Your task to perform on an android device: open app "AliExpress" (install if not already installed) Image 0: 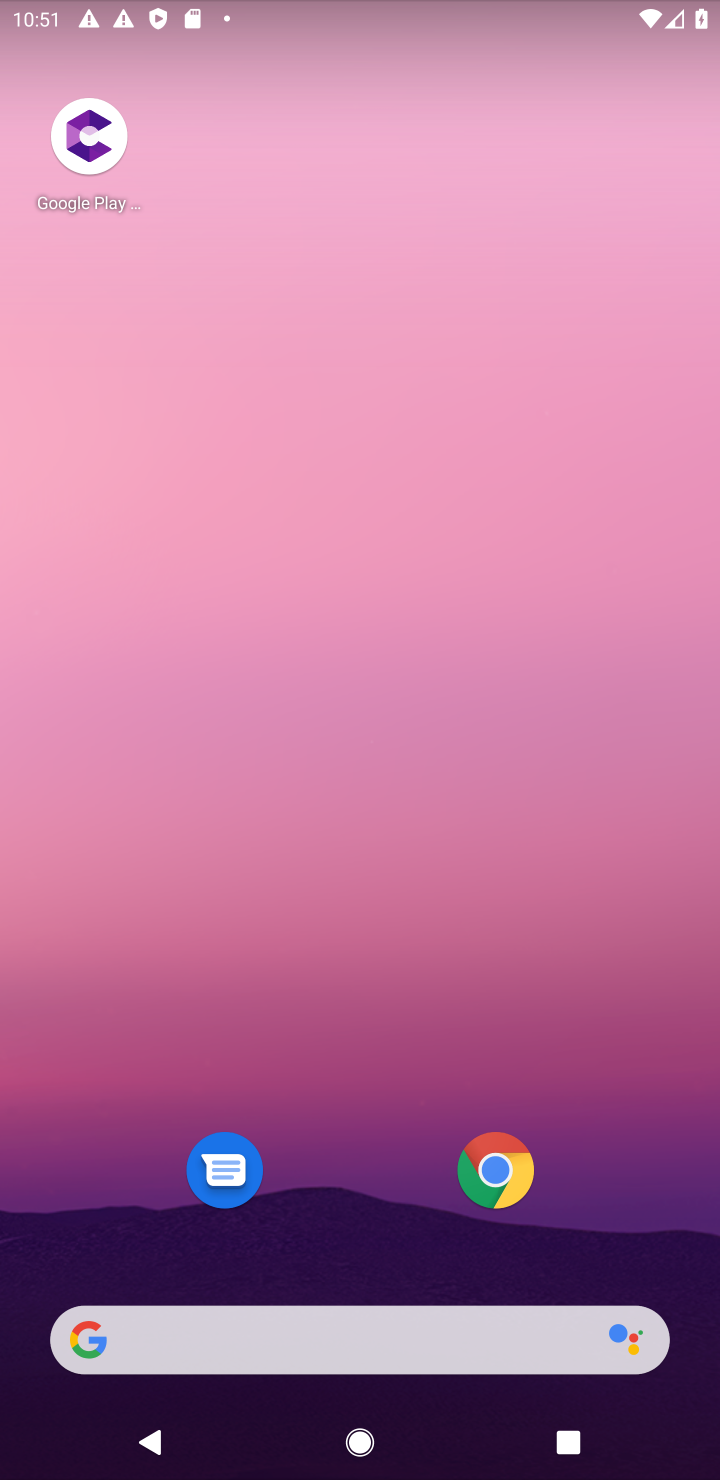
Step 0: drag from (513, 1347) to (512, 273)
Your task to perform on an android device: open app "AliExpress" (install if not already installed) Image 1: 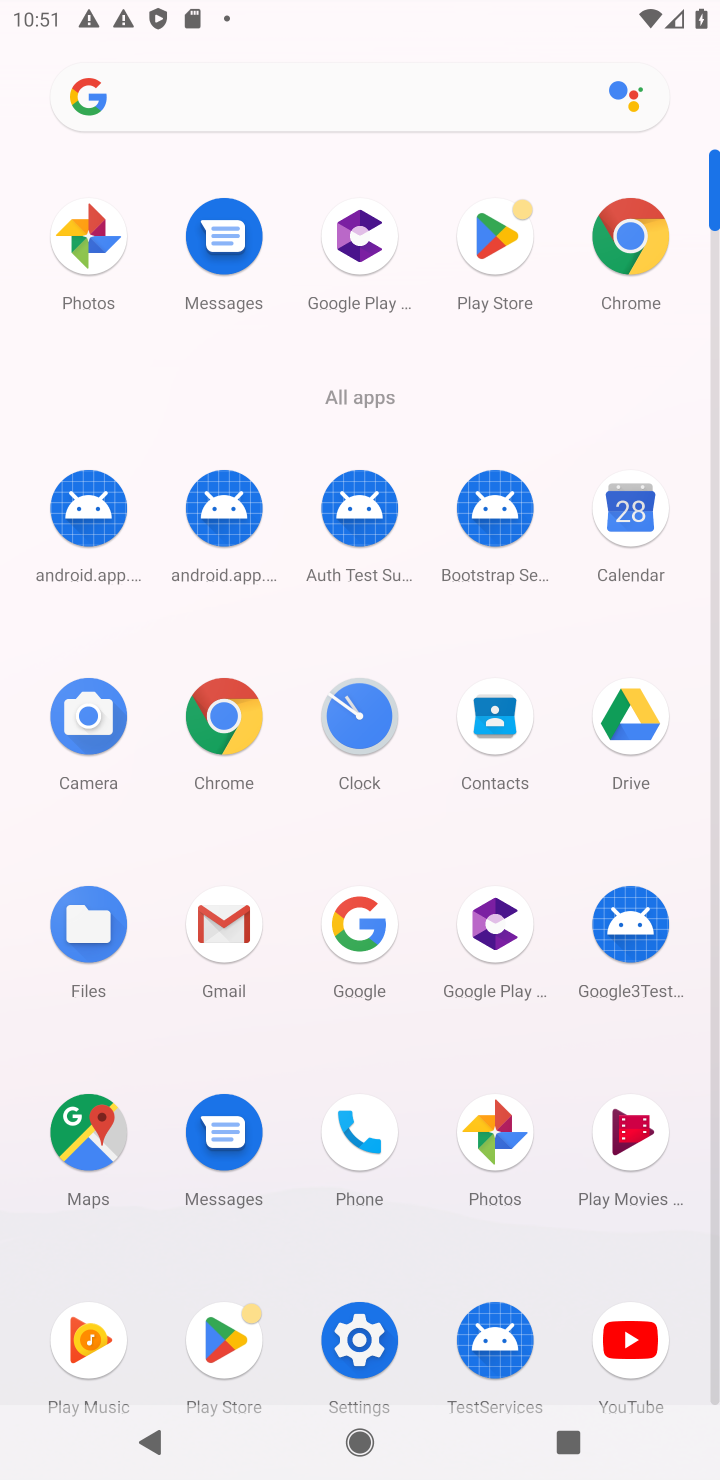
Step 1: click (227, 1331)
Your task to perform on an android device: open app "AliExpress" (install if not already installed) Image 2: 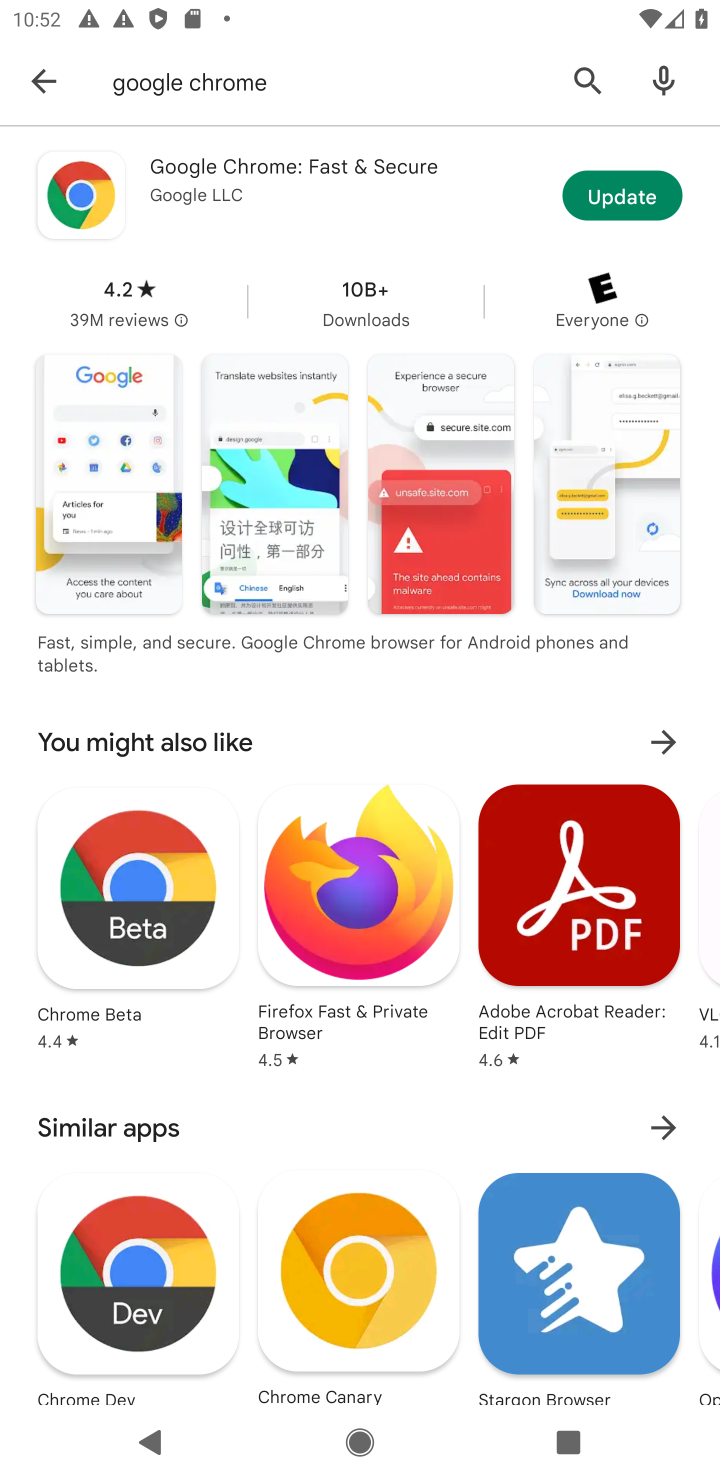
Step 2: click (580, 86)
Your task to perform on an android device: open app "AliExpress" (install if not already installed) Image 3: 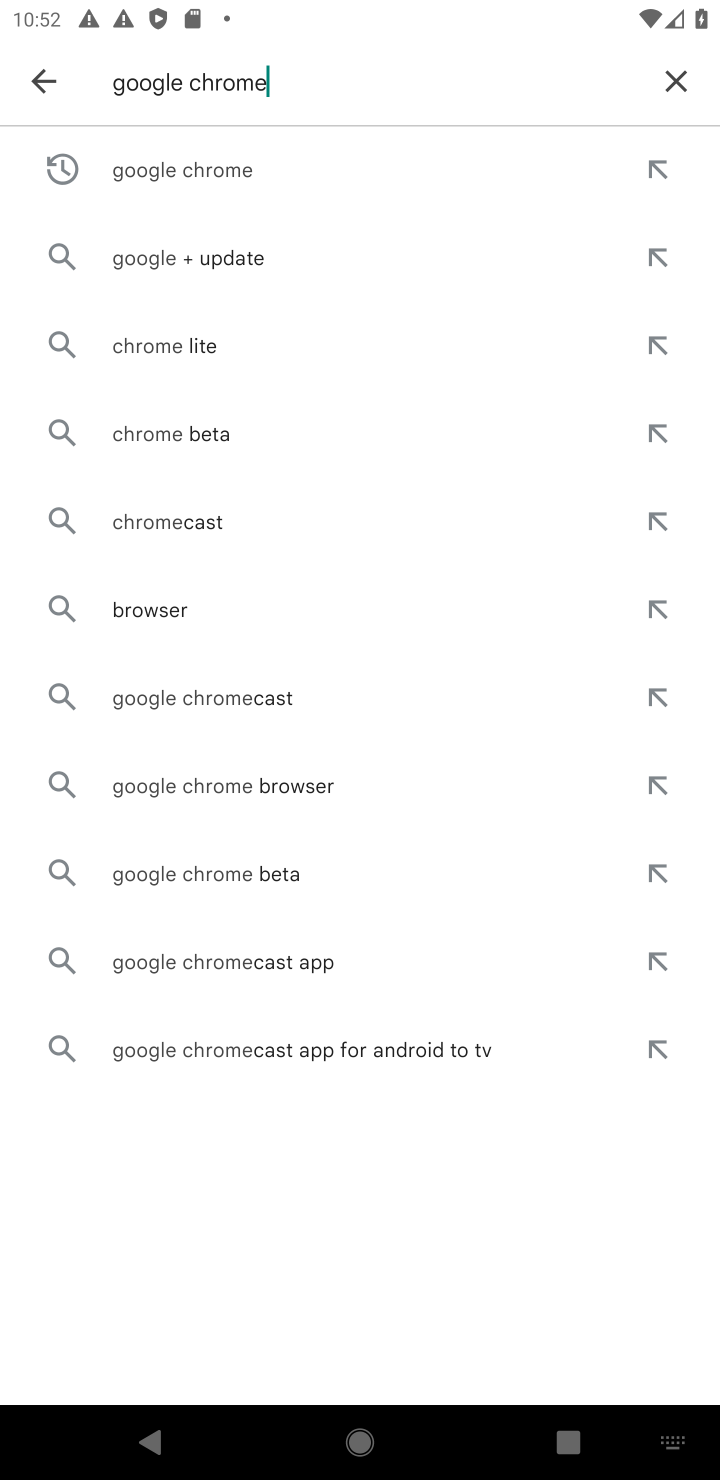
Step 3: click (678, 84)
Your task to perform on an android device: open app "AliExpress" (install if not already installed) Image 4: 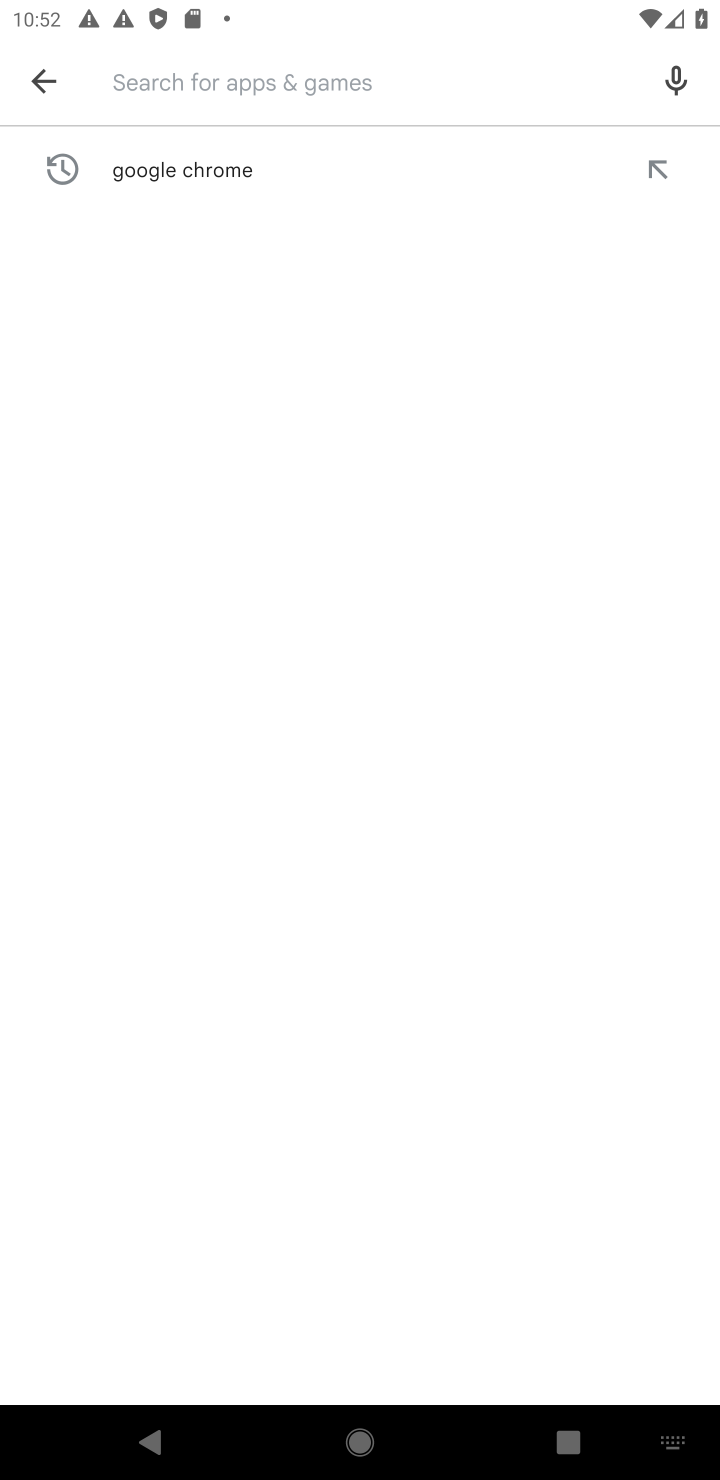
Step 4: type "aliexpress"
Your task to perform on an android device: open app "AliExpress" (install if not already installed) Image 5: 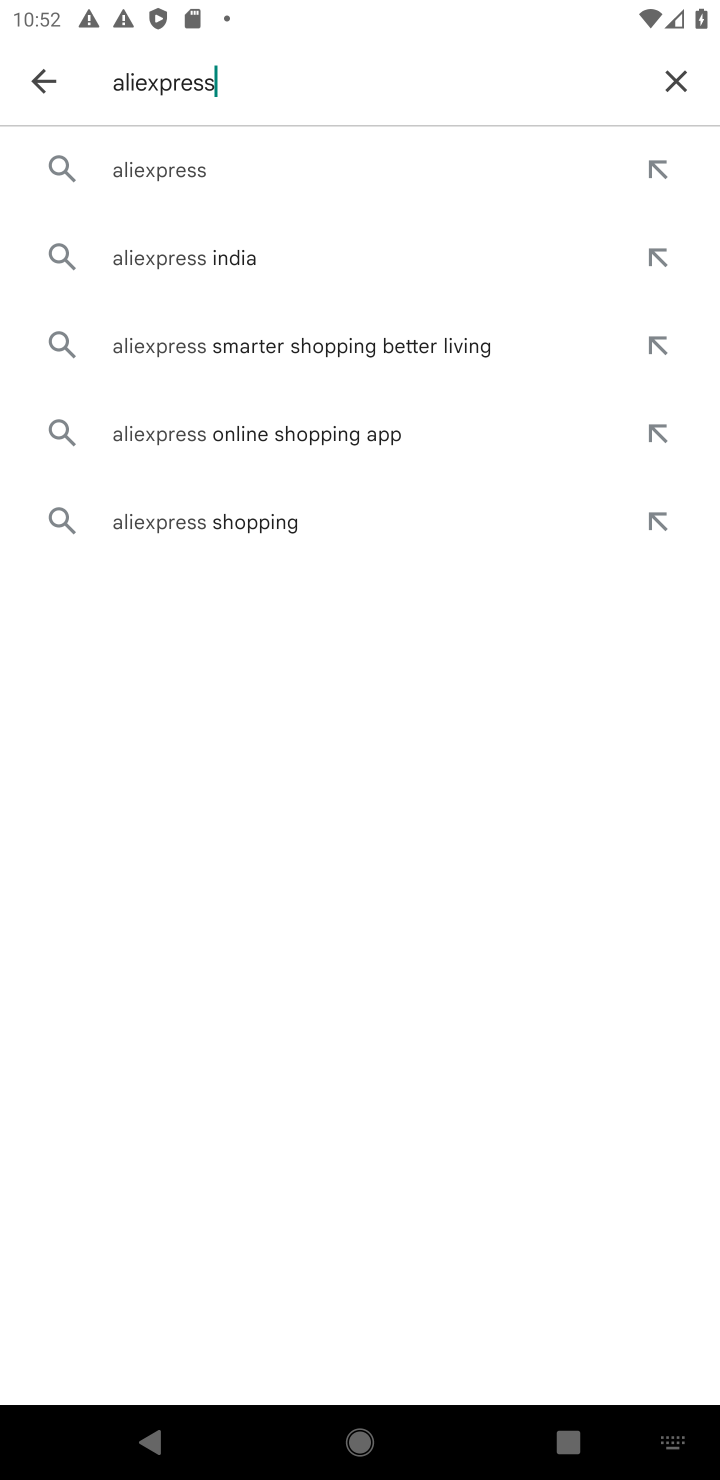
Step 5: click (251, 151)
Your task to perform on an android device: open app "AliExpress" (install if not already installed) Image 6: 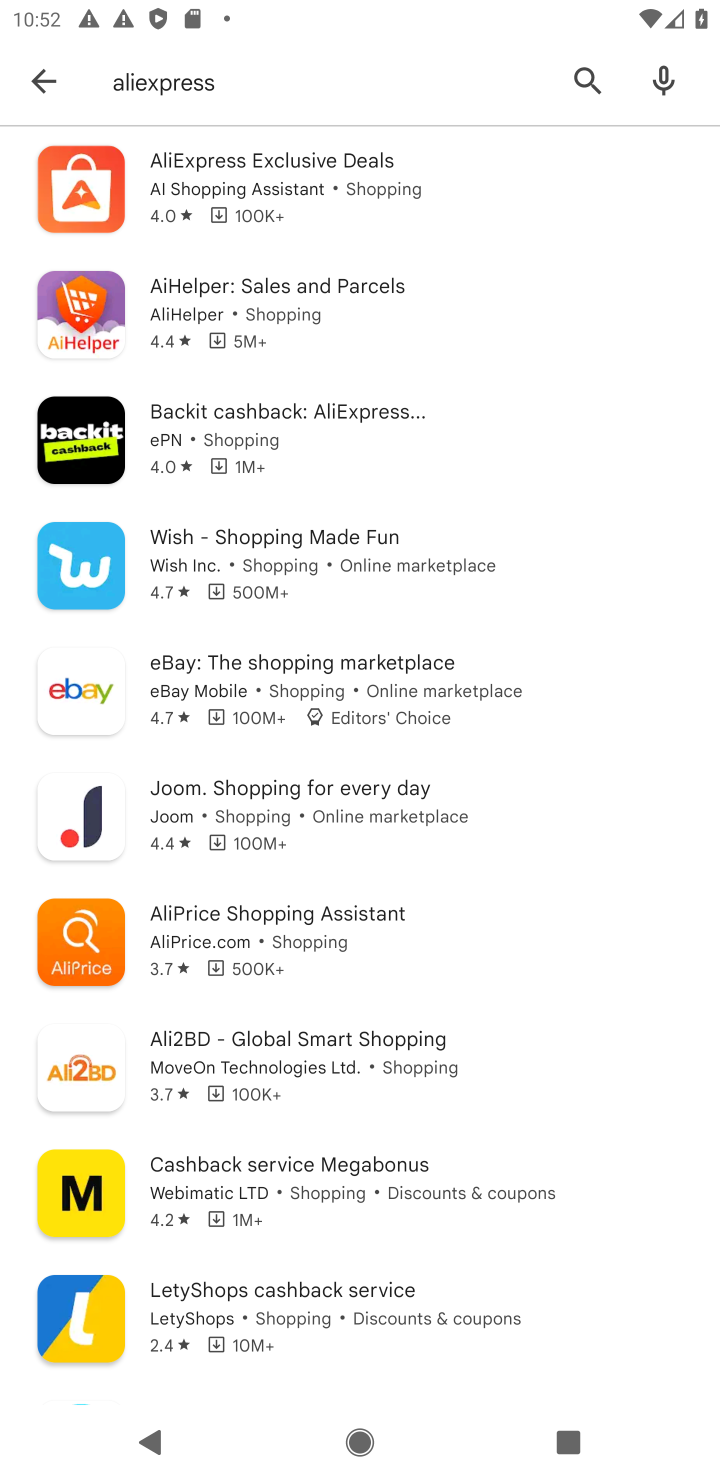
Step 6: click (503, 189)
Your task to perform on an android device: open app "AliExpress" (install if not already installed) Image 7: 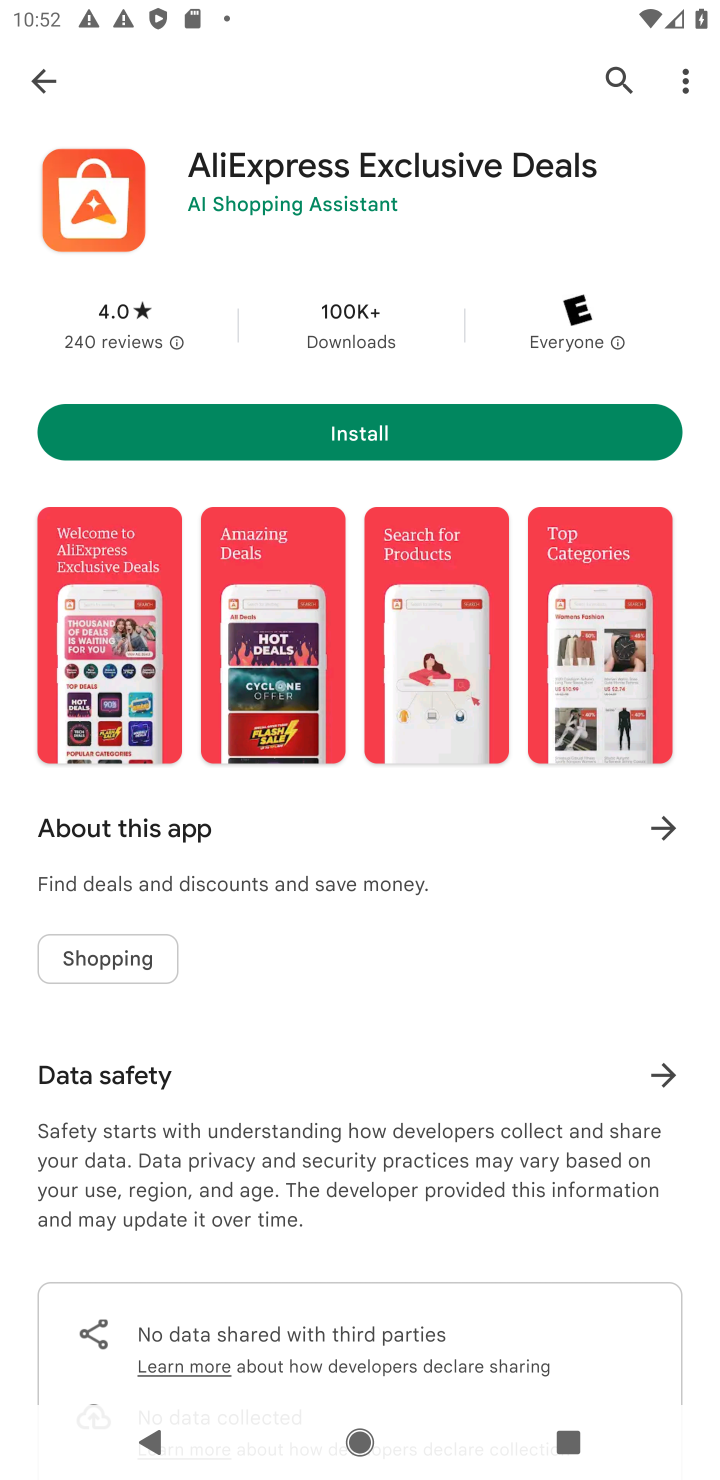
Step 7: click (529, 445)
Your task to perform on an android device: open app "AliExpress" (install if not already installed) Image 8: 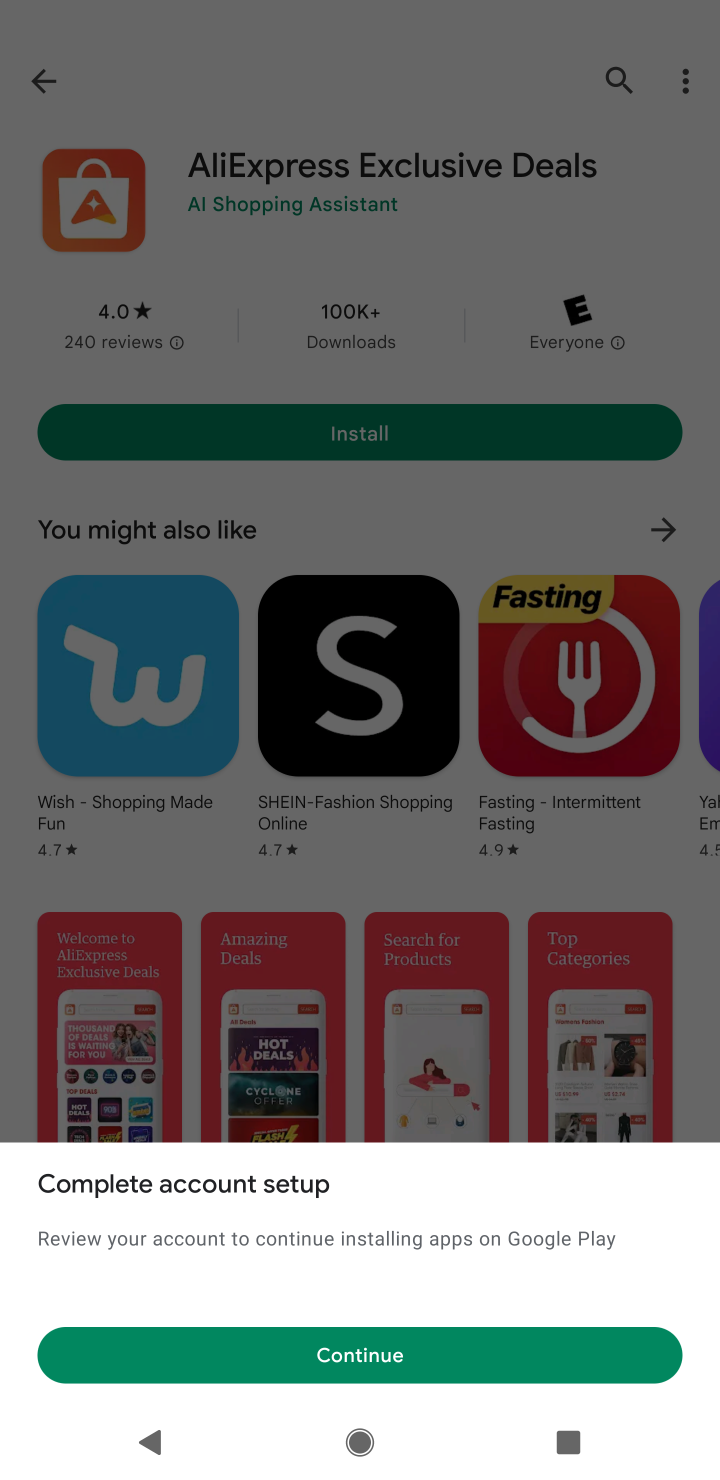
Step 8: click (515, 1368)
Your task to perform on an android device: open app "AliExpress" (install if not already installed) Image 9: 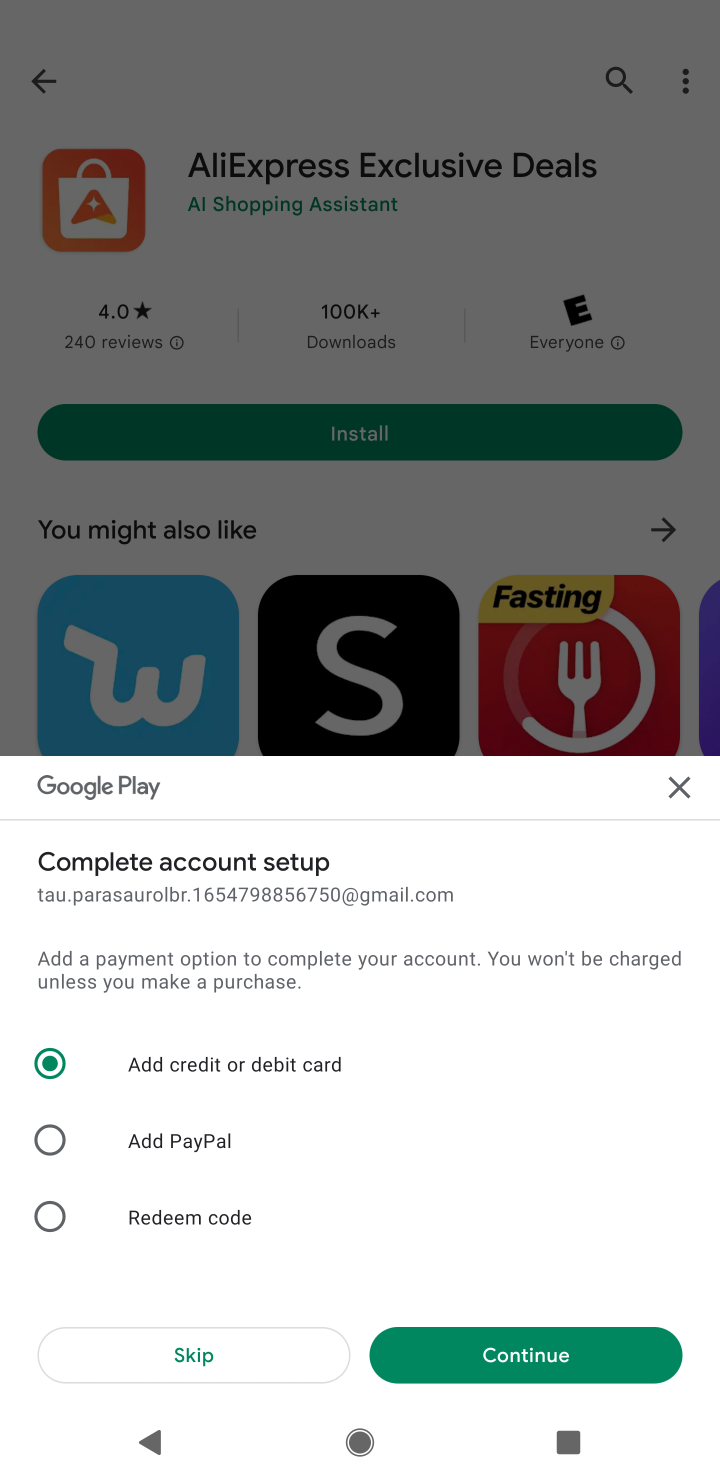
Step 9: click (183, 1356)
Your task to perform on an android device: open app "AliExpress" (install if not already installed) Image 10: 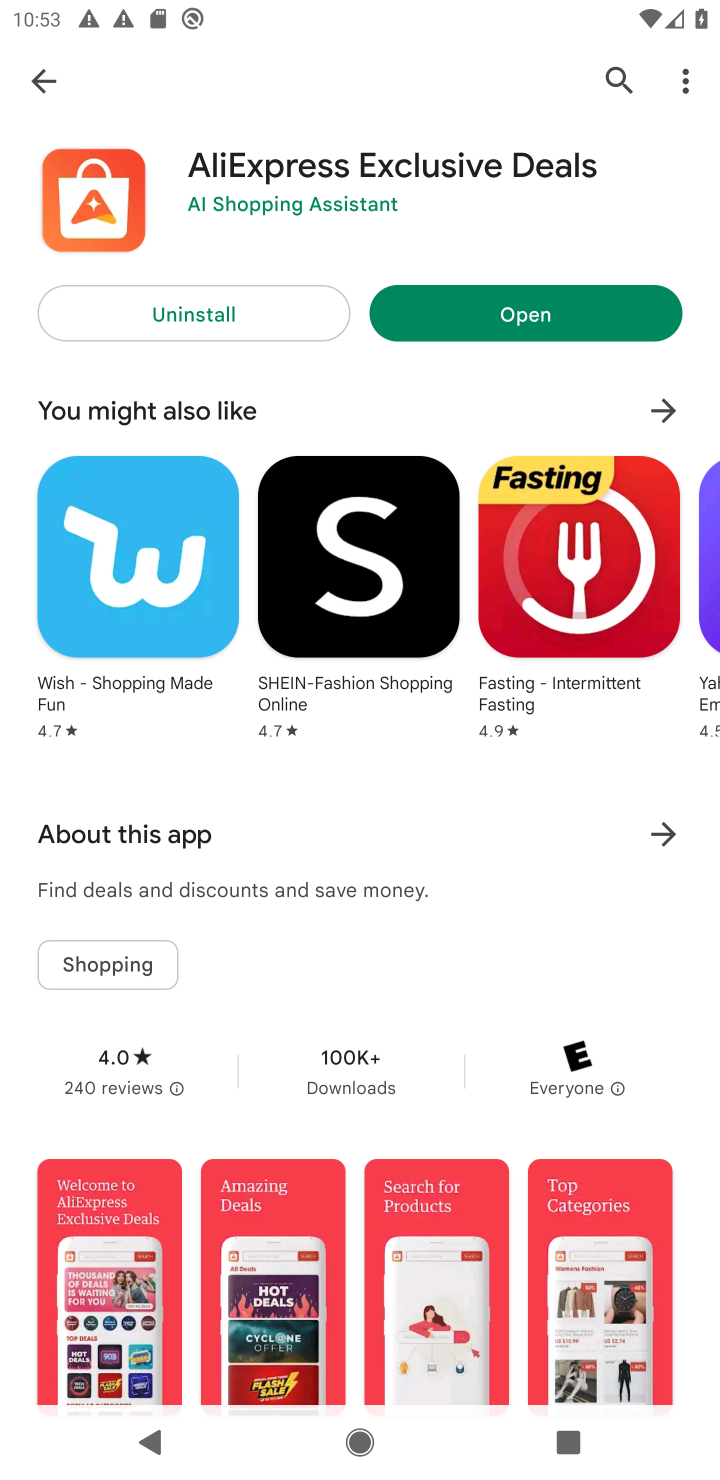
Step 10: click (516, 304)
Your task to perform on an android device: open app "AliExpress" (install if not already installed) Image 11: 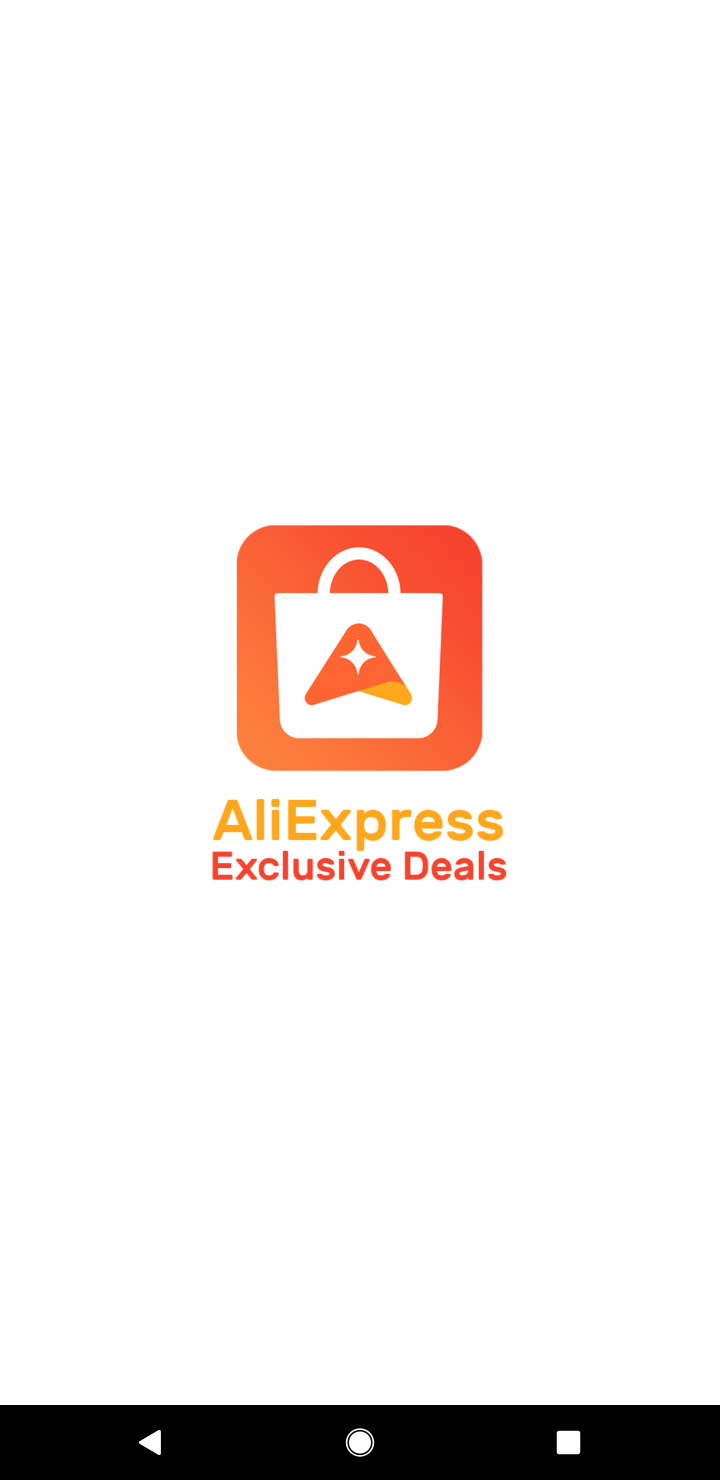
Step 11: task complete